Your task to perform on an android device: empty trash in the gmail app Image 0: 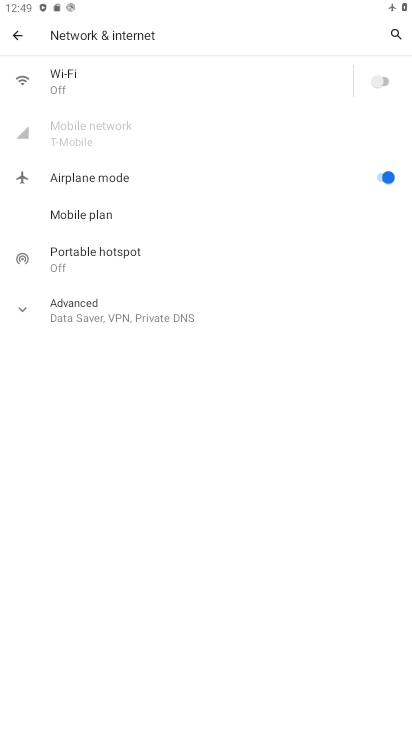
Step 0: press home button
Your task to perform on an android device: empty trash in the gmail app Image 1: 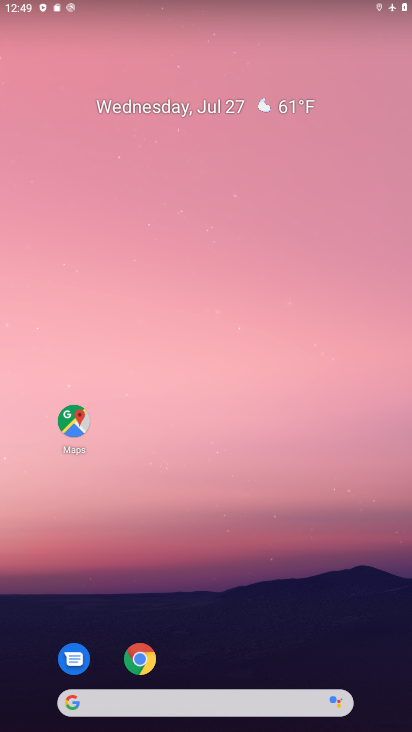
Step 1: drag from (229, 664) to (200, 85)
Your task to perform on an android device: empty trash in the gmail app Image 2: 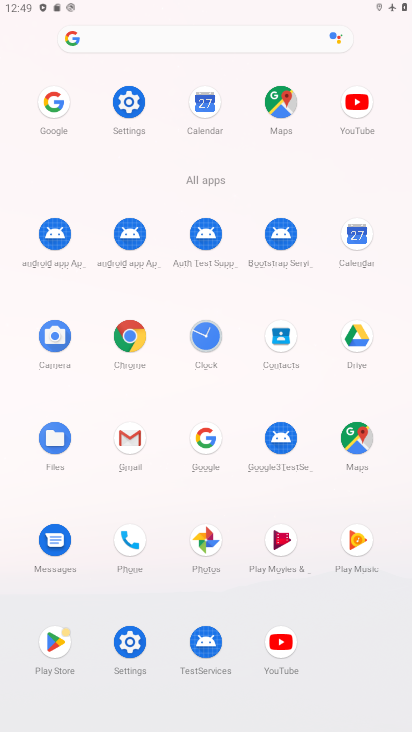
Step 2: click (140, 440)
Your task to perform on an android device: empty trash in the gmail app Image 3: 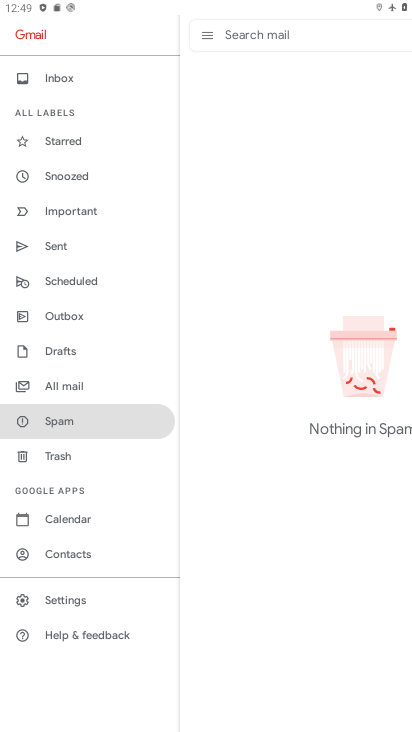
Step 3: click (74, 446)
Your task to perform on an android device: empty trash in the gmail app Image 4: 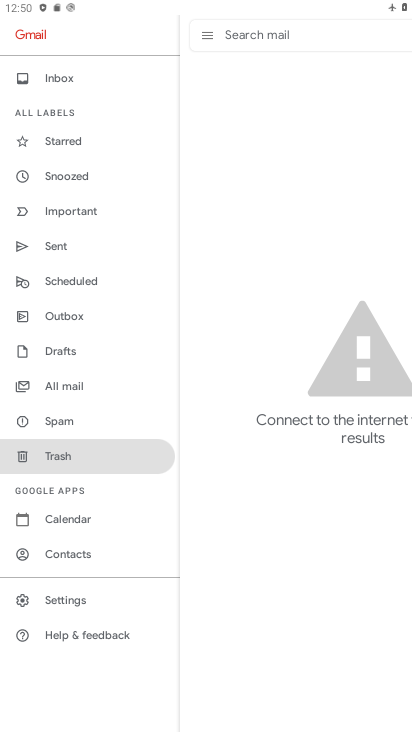
Step 4: task complete